Your task to perform on an android device: Open Android settings Image 0: 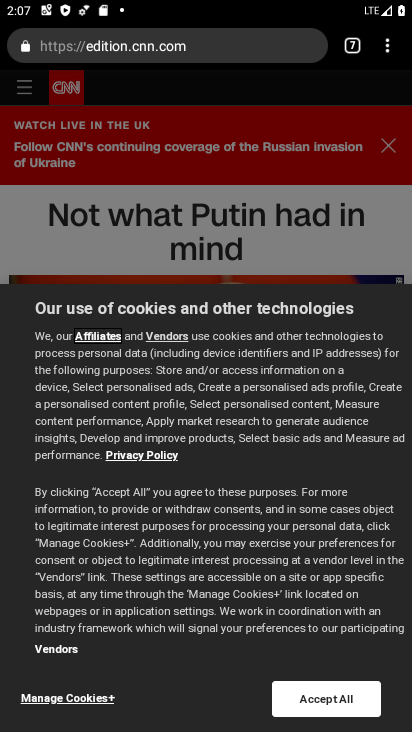
Step 0: press home button
Your task to perform on an android device: Open Android settings Image 1: 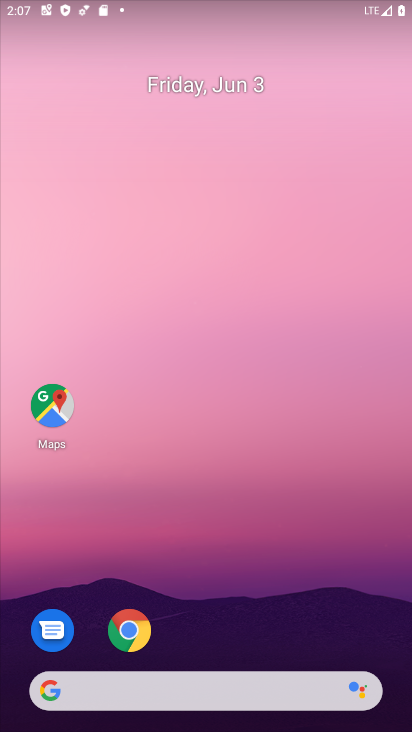
Step 1: drag from (224, 725) to (230, 107)
Your task to perform on an android device: Open Android settings Image 2: 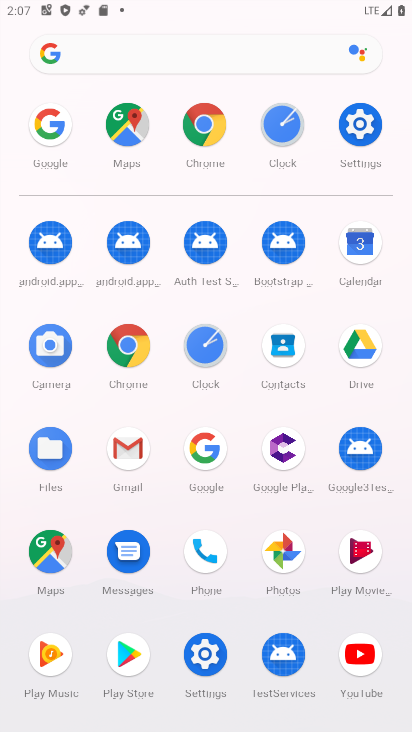
Step 2: click (365, 129)
Your task to perform on an android device: Open Android settings Image 3: 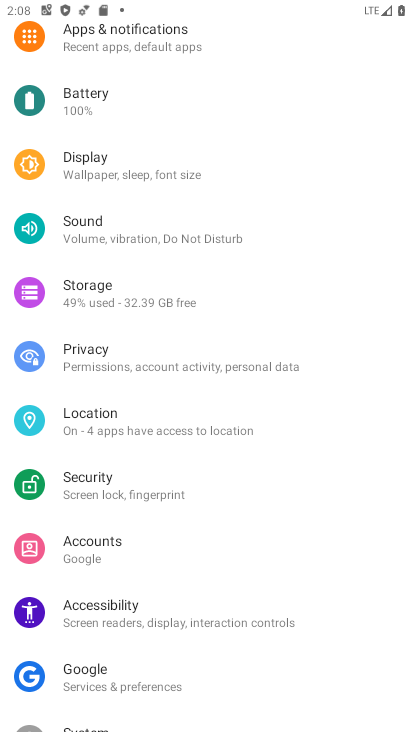
Step 3: task complete